Your task to perform on an android device: turn notification dots off Image 0: 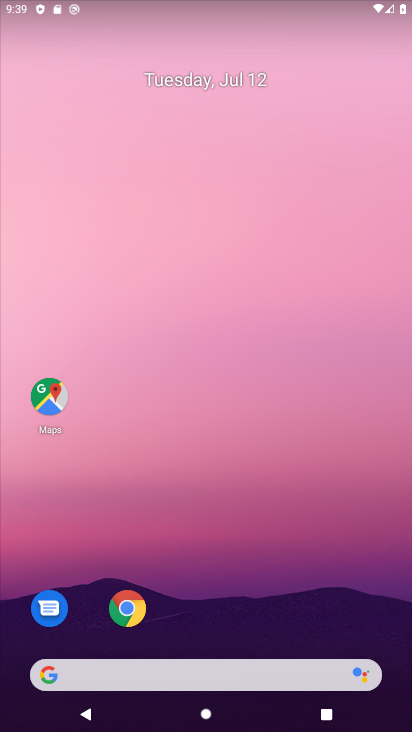
Step 0: click (201, 92)
Your task to perform on an android device: turn notification dots off Image 1: 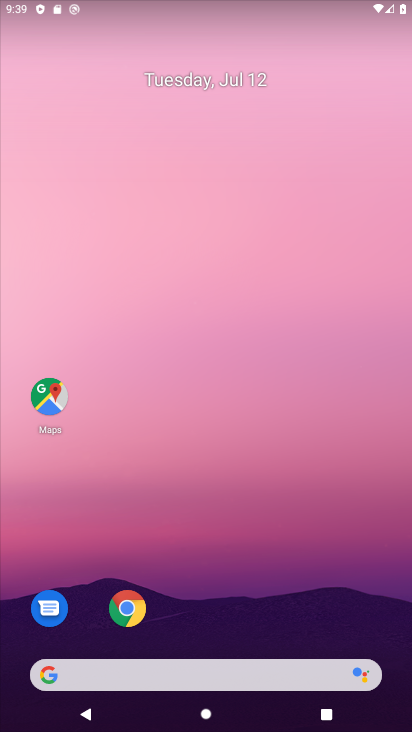
Step 1: drag from (301, 602) to (306, 10)
Your task to perform on an android device: turn notification dots off Image 2: 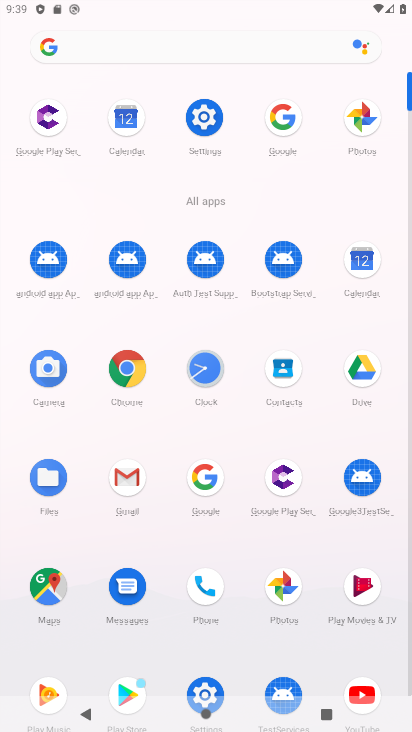
Step 2: click (203, 129)
Your task to perform on an android device: turn notification dots off Image 3: 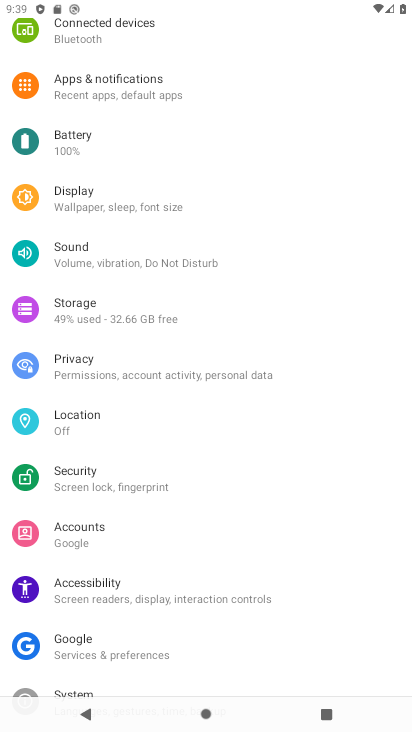
Step 3: click (136, 76)
Your task to perform on an android device: turn notification dots off Image 4: 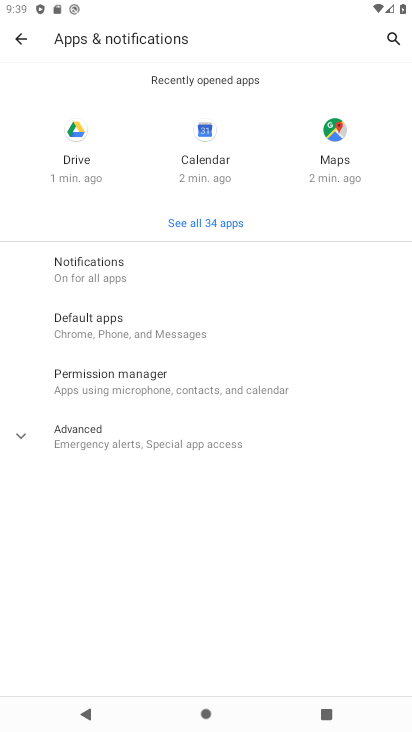
Step 4: click (120, 268)
Your task to perform on an android device: turn notification dots off Image 5: 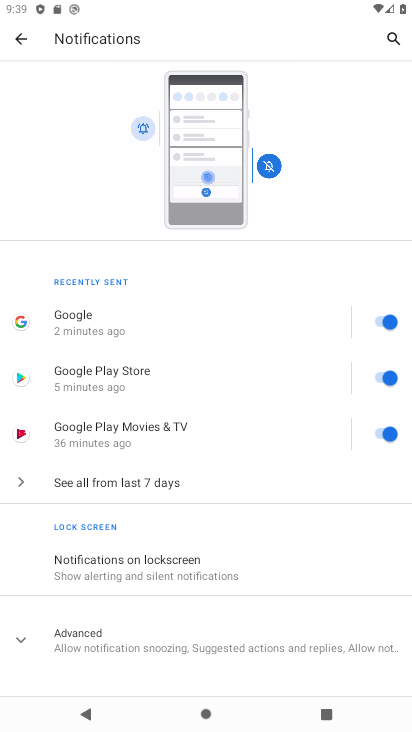
Step 5: click (170, 628)
Your task to perform on an android device: turn notification dots off Image 6: 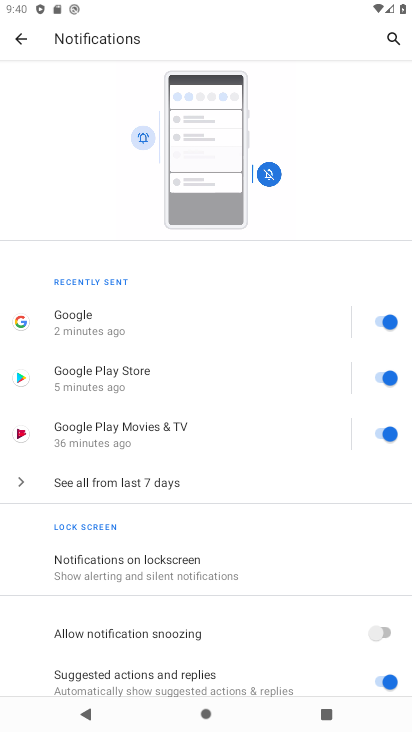
Step 6: drag from (173, 627) to (181, 84)
Your task to perform on an android device: turn notification dots off Image 7: 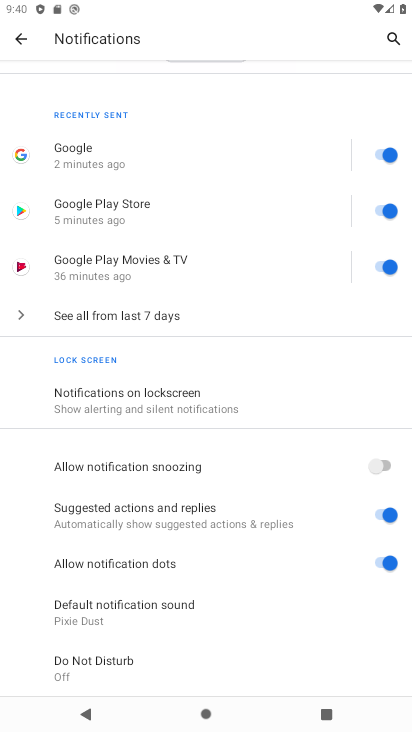
Step 7: click (376, 559)
Your task to perform on an android device: turn notification dots off Image 8: 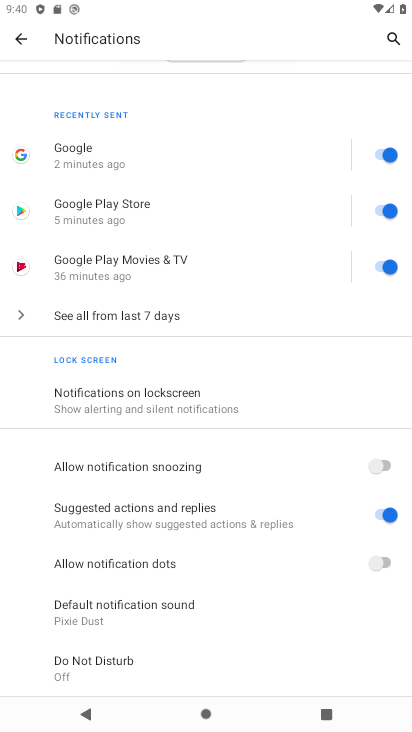
Step 8: task complete